Your task to perform on an android device: Open Chrome and go to the settings page Image 0: 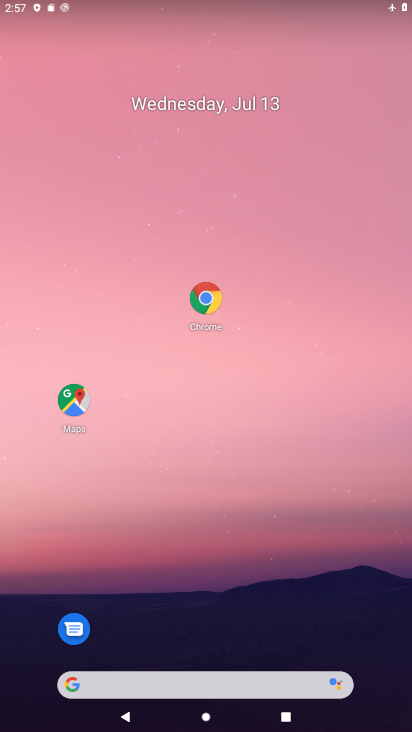
Step 0: drag from (220, 581) to (266, 159)
Your task to perform on an android device: Open Chrome and go to the settings page Image 1: 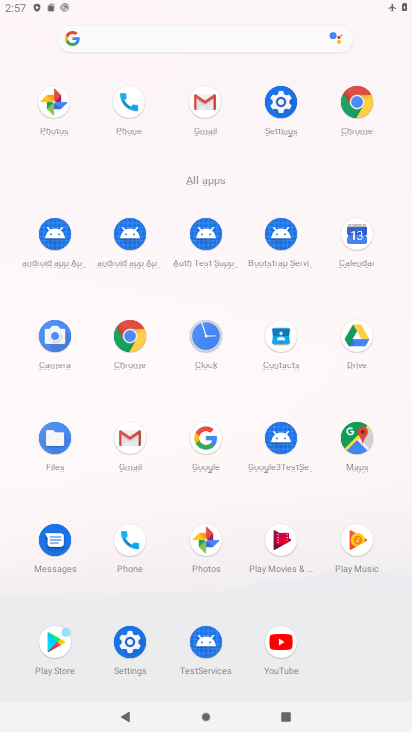
Step 1: click (363, 96)
Your task to perform on an android device: Open Chrome and go to the settings page Image 2: 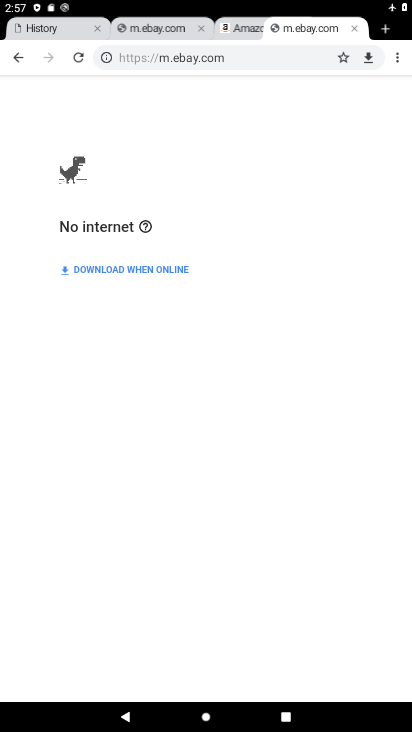
Step 2: click (399, 54)
Your task to perform on an android device: Open Chrome and go to the settings page Image 3: 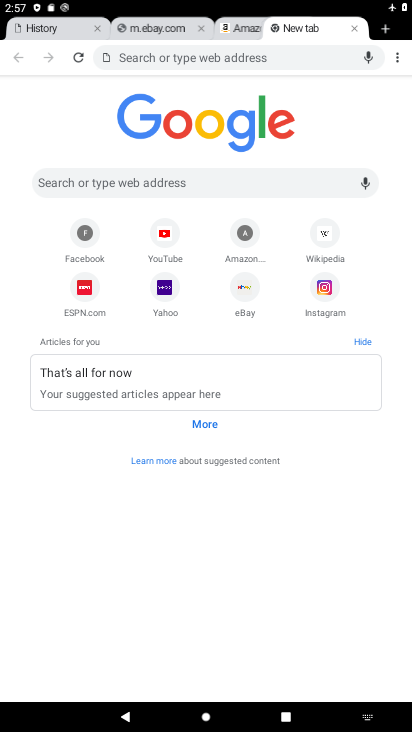
Step 3: click (399, 51)
Your task to perform on an android device: Open Chrome and go to the settings page Image 4: 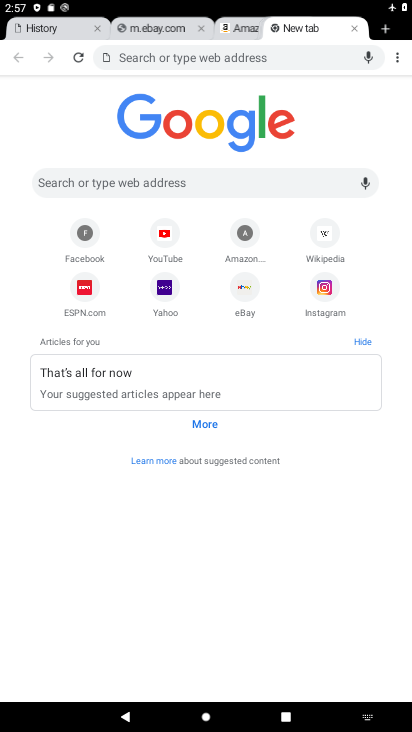
Step 4: click (392, 58)
Your task to perform on an android device: Open Chrome and go to the settings page Image 5: 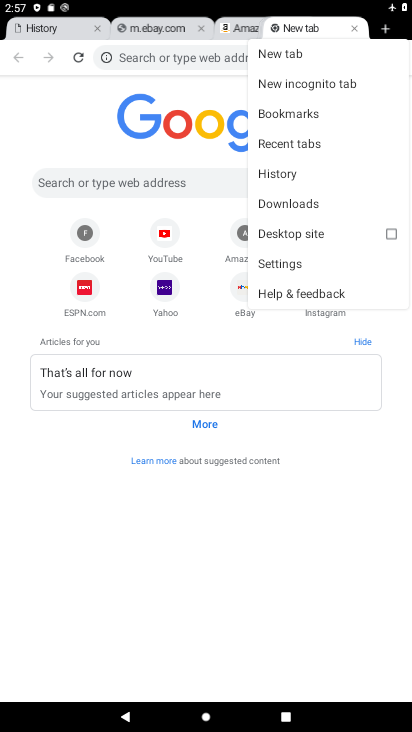
Step 5: click (308, 262)
Your task to perform on an android device: Open Chrome and go to the settings page Image 6: 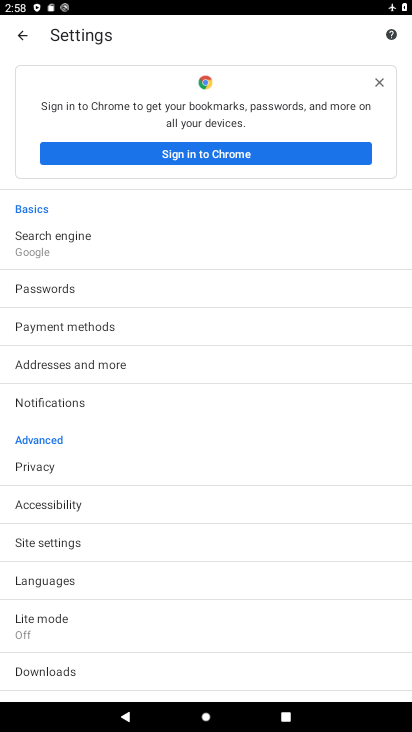
Step 6: task complete